Your task to perform on an android device: check out phone information Image 0: 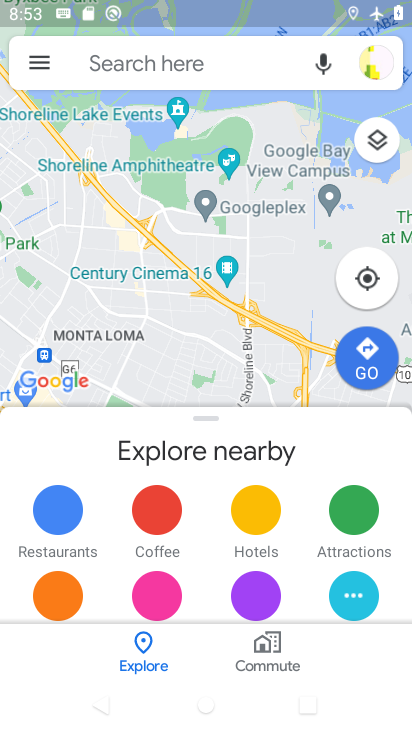
Step 0: press back button
Your task to perform on an android device: check out phone information Image 1: 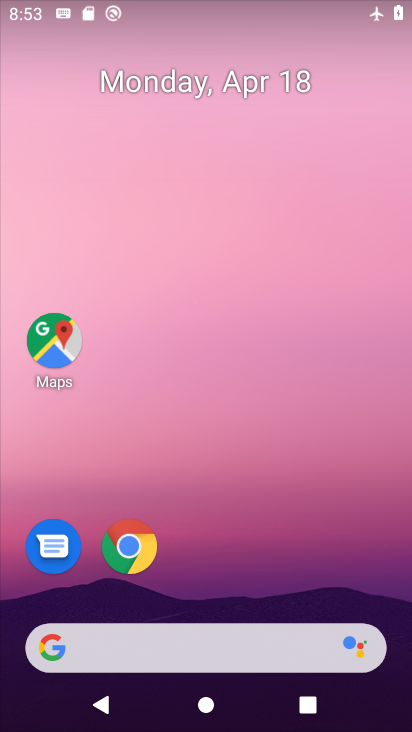
Step 1: click (237, 217)
Your task to perform on an android device: check out phone information Image 2: 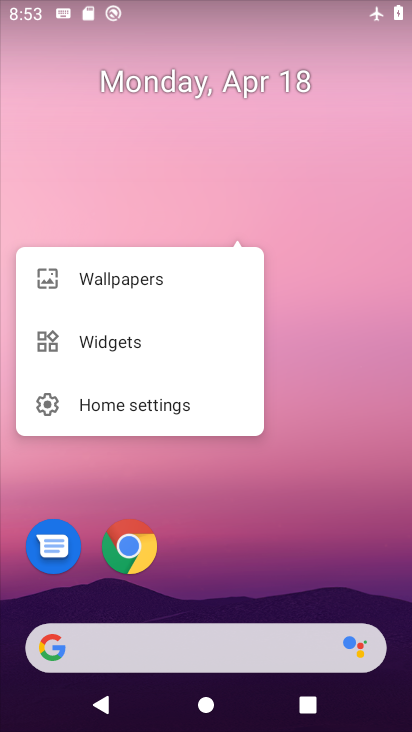
Step 2: drag from (392, 617) to (263, 166)
Your task to perform on an android device: check out phone information Image 3: 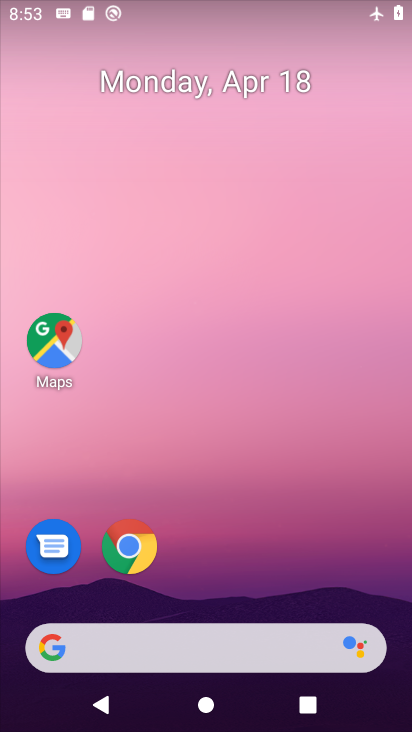
Step 3: drag from (396, 618) to (283, 200)
Your task to perform on an android device: check out phone information Image 4: 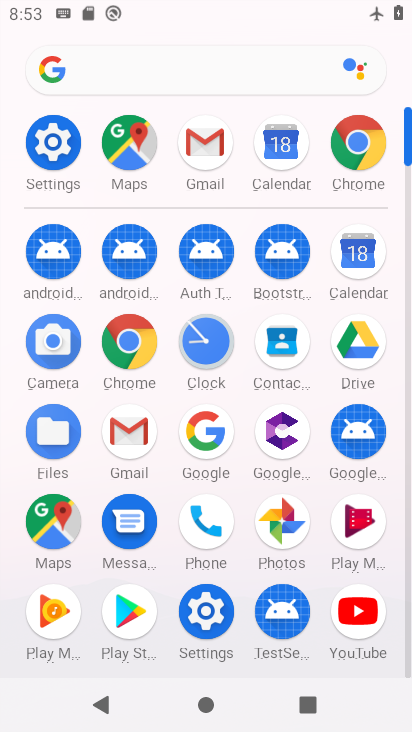
Step 4: click (54, 158)
Your task to perform on an android device: check out phone information Image 5: 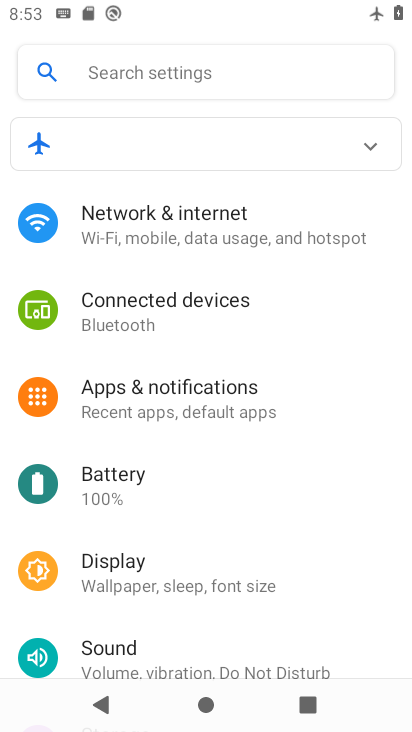
Step 5: drag from (379, 639) to (333, 254)
Your task to perform on an android device: check out phone information Image 6: 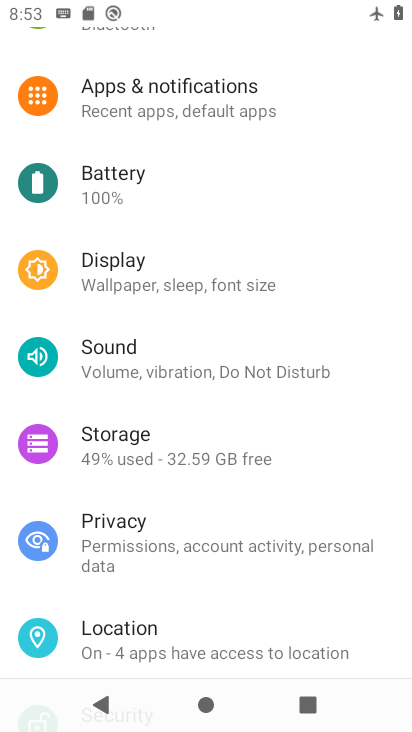
Step 6: drag from (291, 595) to (299, 212)
Your task to perform on an android device: check out phone information Image 7: 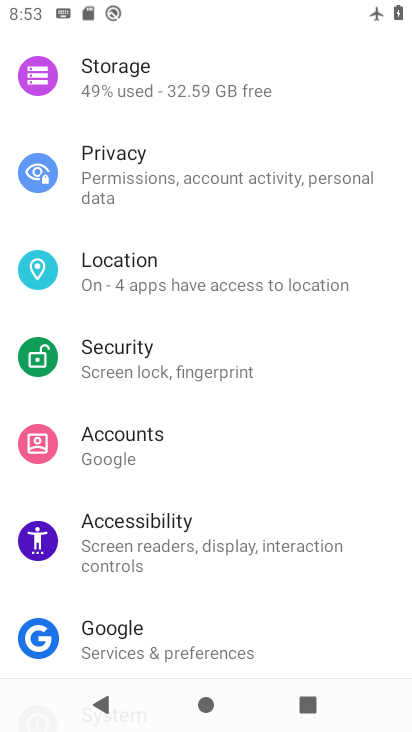
Step 7: drag from (261, 600) to (266, 107)
Your task to perform on an android device: check out phone information Image 8: 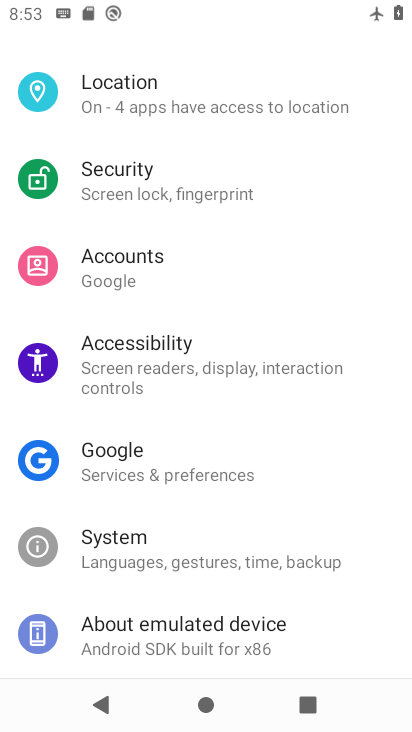
Step 8: click (218, 626)
Your task to perform on an android device: check out phone information Image 9: 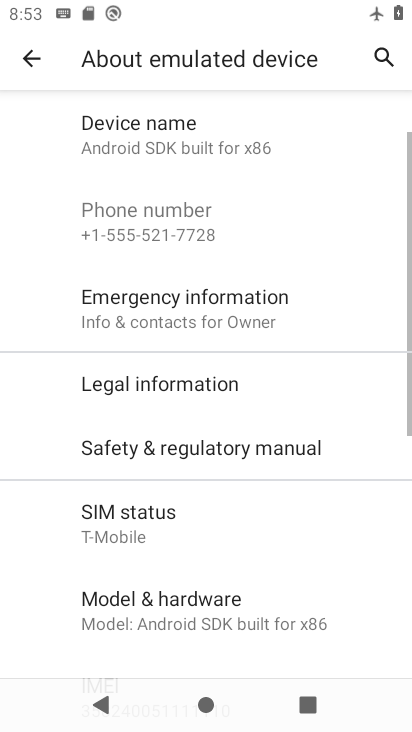
Step 9: task complete